Your task to perform on an android device: Open Google Image 0: 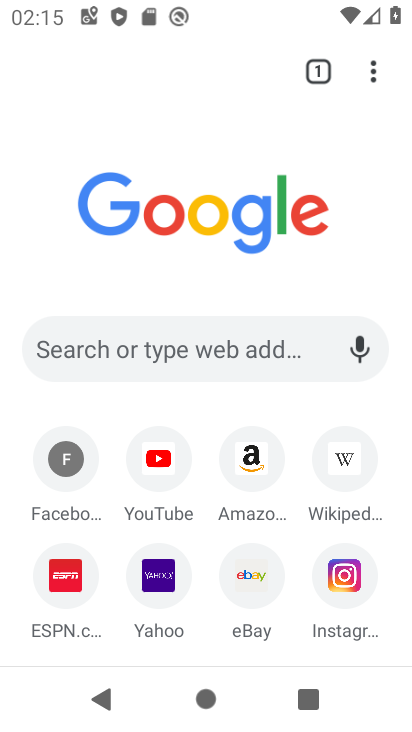
Step 0: task complete